Your task to perform on an android device: search for starred emails in the gmail app Image 0: 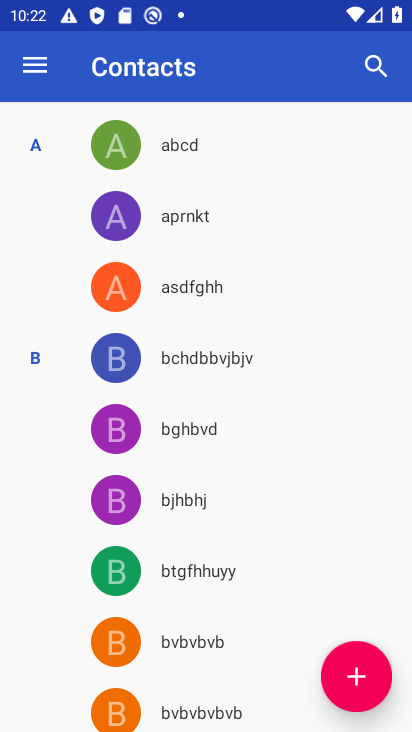
Step 0: press home button
Your task to perform on an android device: search for starred emails in the gmail app Image 1: 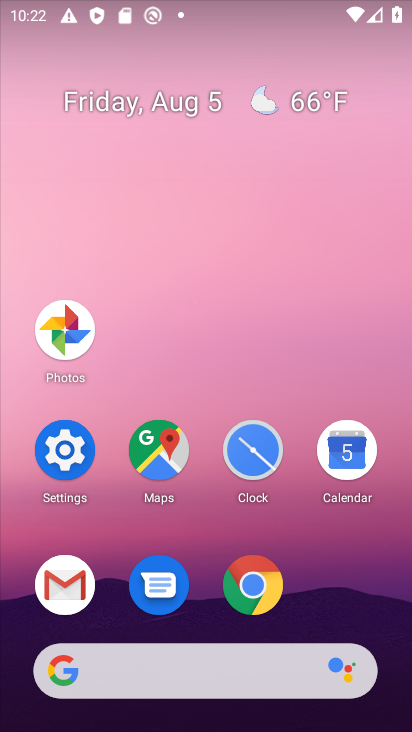
Step 1: click (68, 570)
Your task to perform on an android device: search for starred emails in the gmail app Image 2: 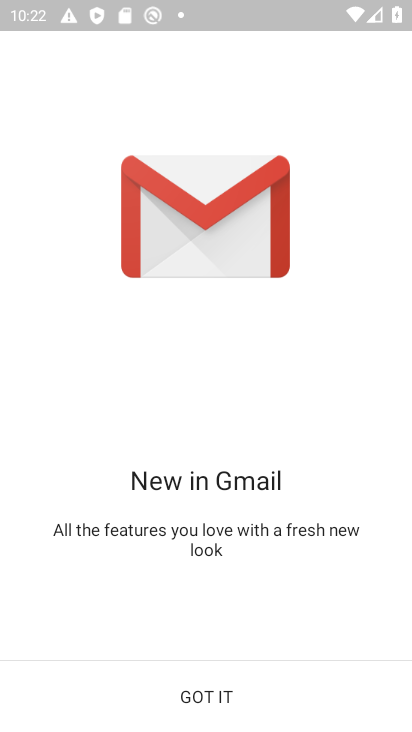
Step 2: click (207, 690)
Your task to perform on an android device: search for starred emails in the gmail app Image 3: 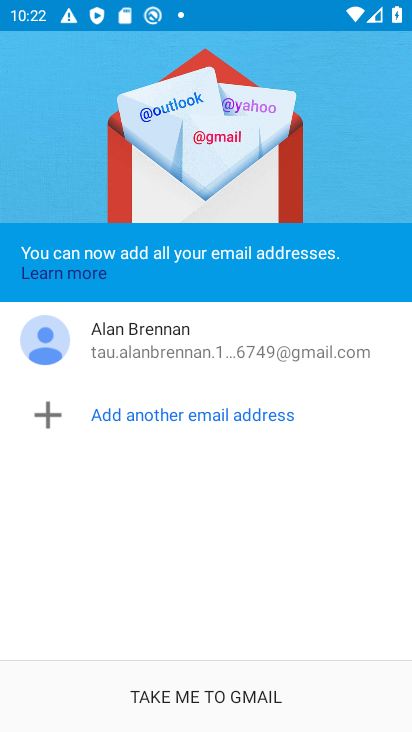
Step 3: click (201, 688)
Your task to perform on an android device: search for starred emails in the gmail app Image 4: 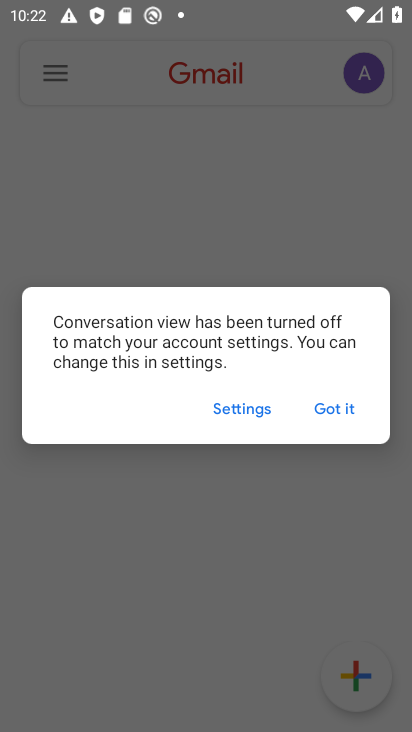
Step 4: click (341, 410)
Your task to perform on an android device: search for starred emails in the gmail app Image 5: 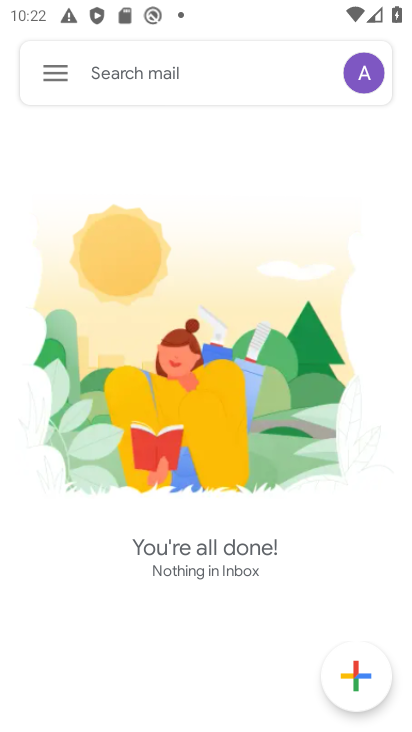
Step 5: click (52, 60)
Your task to perform on an android device: search for starred emails in the gmail app Image 6: 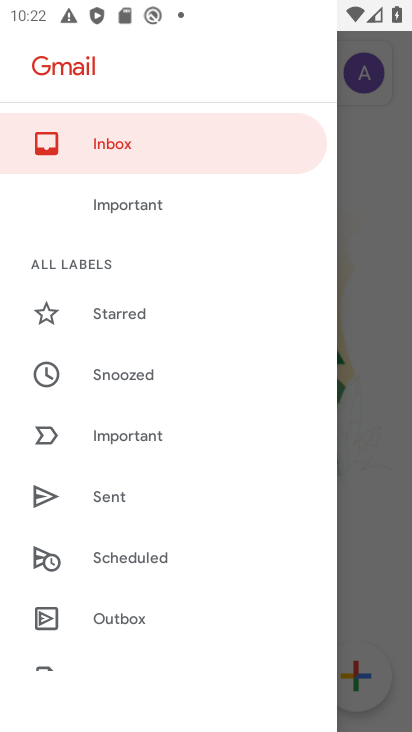
Step 6: click (118, 308)
Your task to perform on an android device: search for starred emails in the gmail app Image 7: 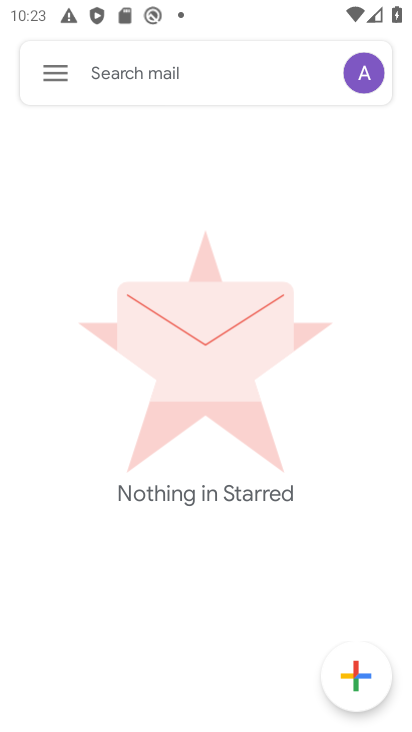
Step 7: task complete